Your task to perform on an android device: Go to Yahoo.com Image 0: 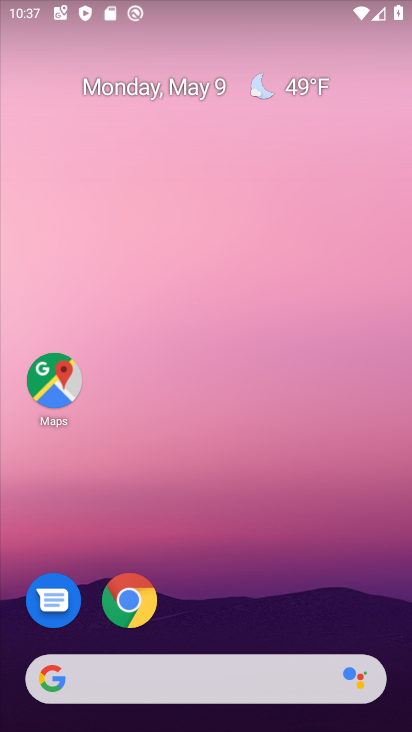
Step 0: drag from (402, 607) to (317, 200)
Your task to perform on an android device: Go to Yahoo.com Image 1: 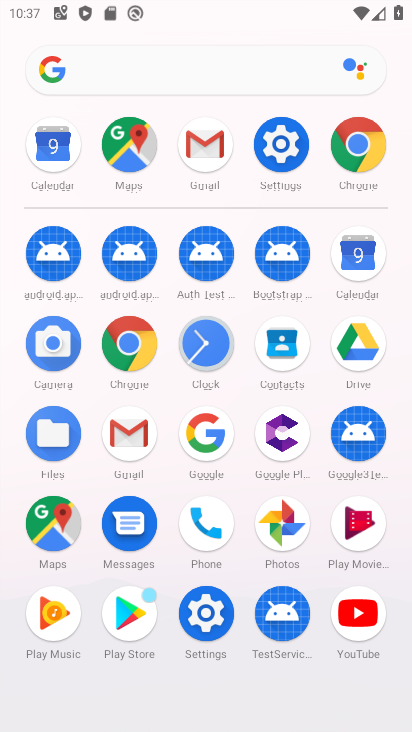
Step 1: click (143, 357)
Your task to perform on an android device: Go to Yahoo.com Image 2: 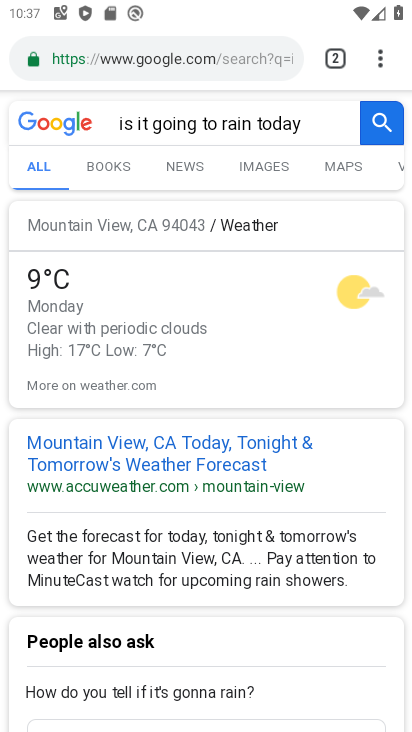
Step 2: click (226, 62)
Your task to perform on an android device: Go to Yahoo.com Image 3: 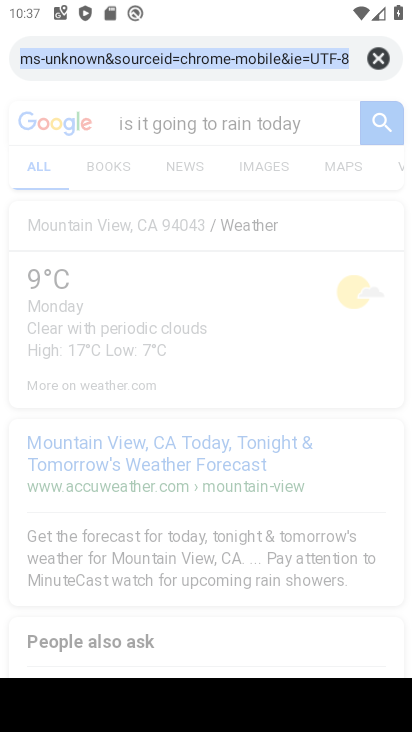
Step 3: click (395, 55)
Your task to perform on an android device: Go to Yahoo.com Image 4: 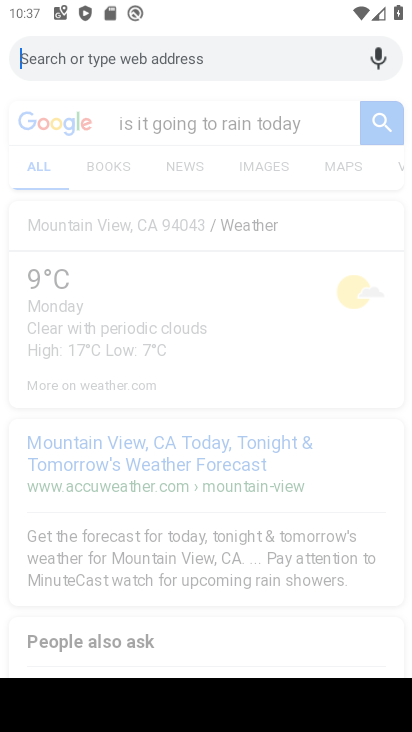
Step 4: type "yahoo.com"
Your task to perform on an android device: Go to Yahoo.com Image 5: 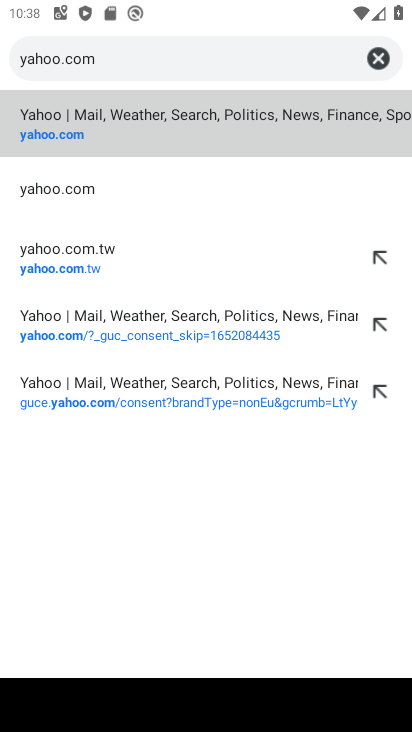
Step 5: click (103, 109)
Your task to perform on an android device: Go to Yahoo.com Image 6: 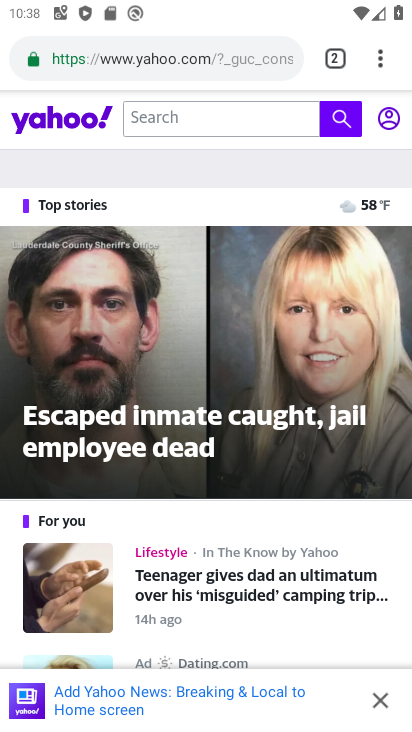
Step 6: task complete